Your task to perform on an android device: What's the weather? Image 0: 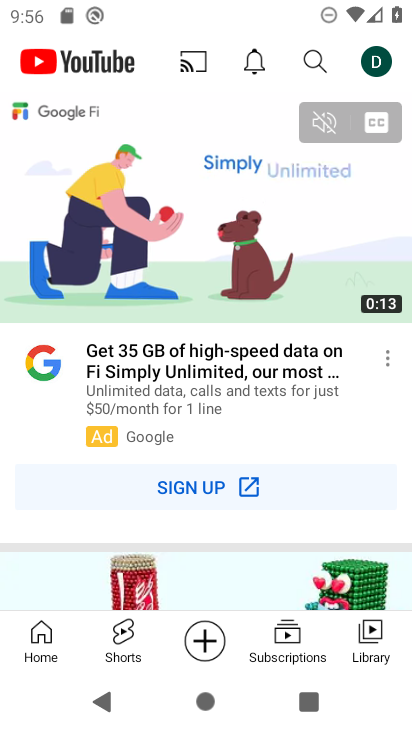
Step 0: press home button
Your task to perform on an android device: What's the weather? Image 1: 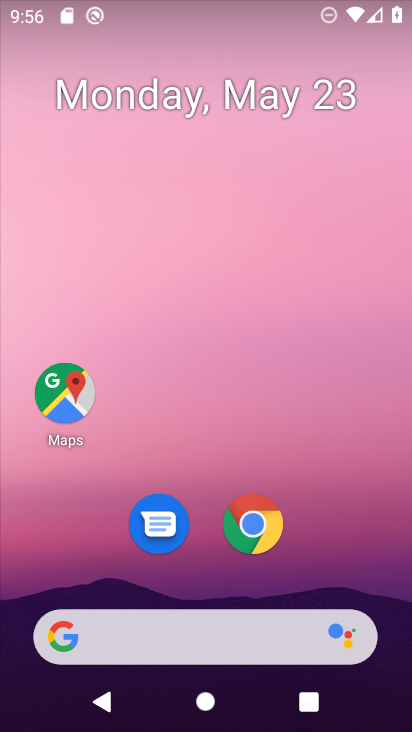
Step 1: click (264, 635)
Your task to perform on an android device: What's the weather? Image 2: 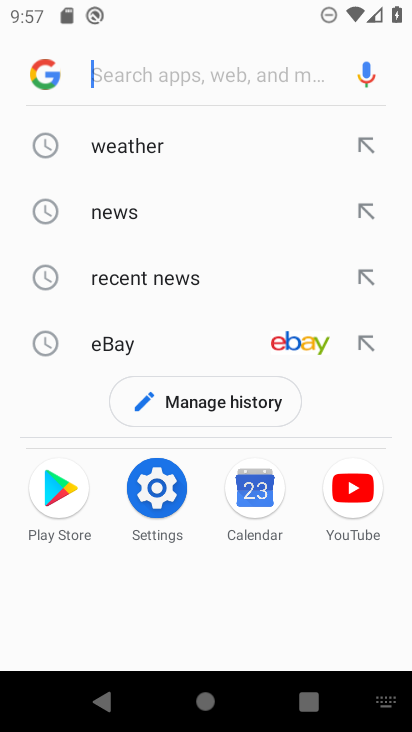
Step 2: click (126, 151)
Your task to perform on an android device: What's the weather? Image 3: 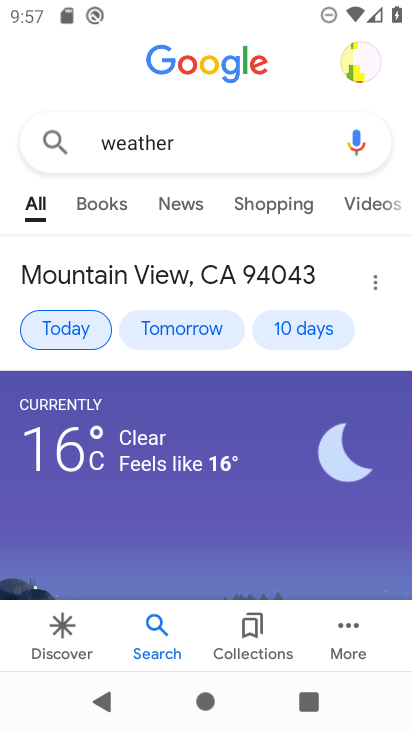
Step 3: click (78, 324)
Your task to perform on an android device: What's the weather? Image 4: 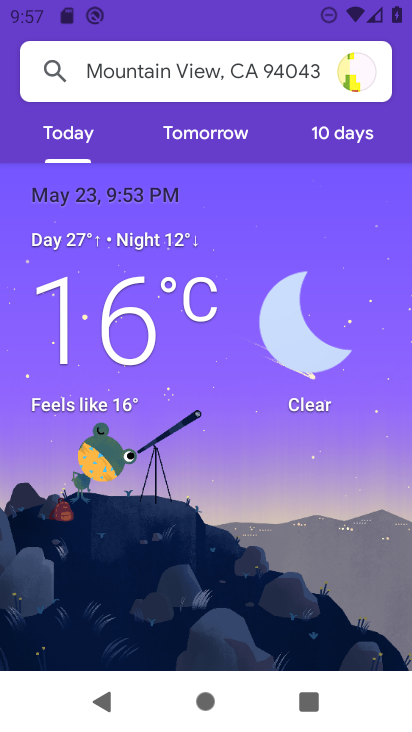
Step 4: task complete